Your task to perform on an android device: Go to calendar. Show me events next week Image 0: 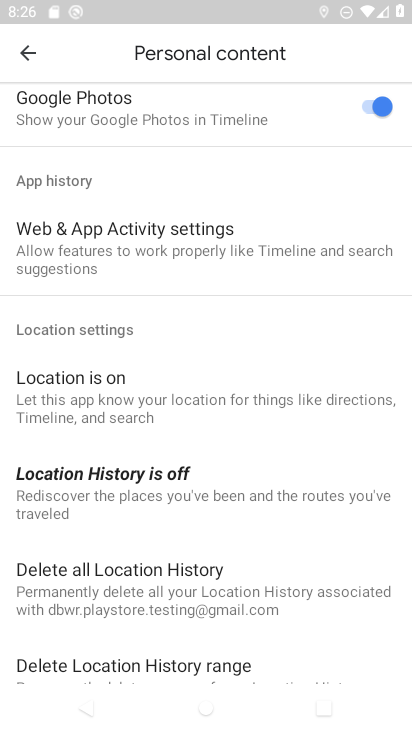
Step 0: press home button
Your task to perform on an android device: Go to calendar. Show me events next week Image 1: 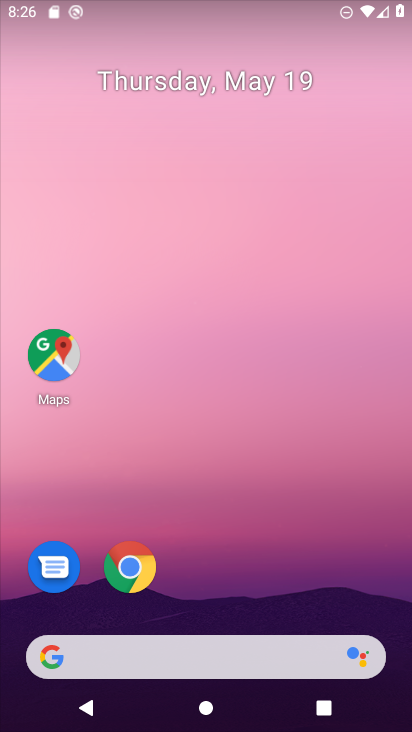
Step 1: click (248, 88)
Your task to perform on an android device: Go to calendar. Show me events next week Image 2: 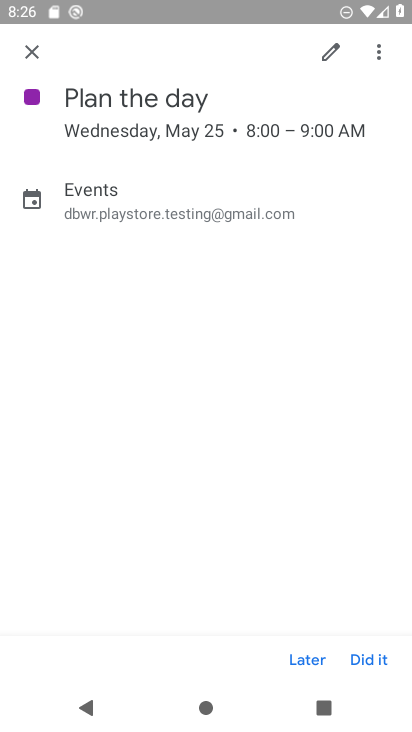
Step 2: click (31, 56)
Your task to perform on an android device: Go to calendar. Show me events next week Image 3: 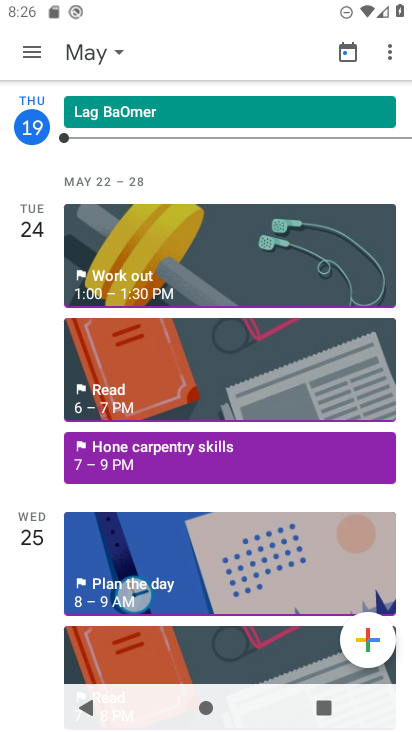
Step 3: click (110, 61)
Your task to perform on an android device: Go to calendar. Show me events next week Image 4: 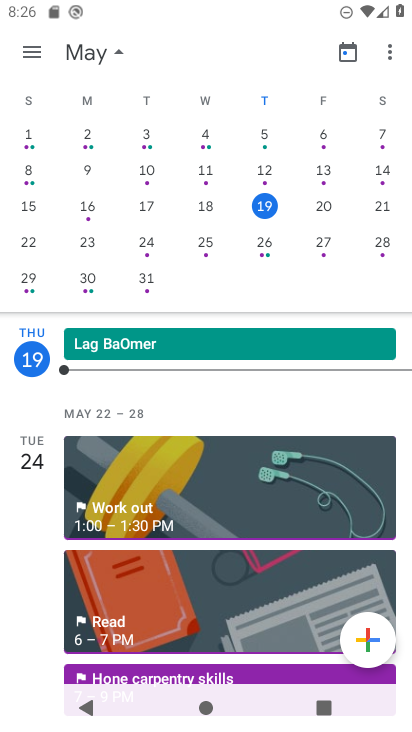
Step 4: click (265, 243)
Your task to perform on an android device: Go to calendar. Show me events next week Image 5: 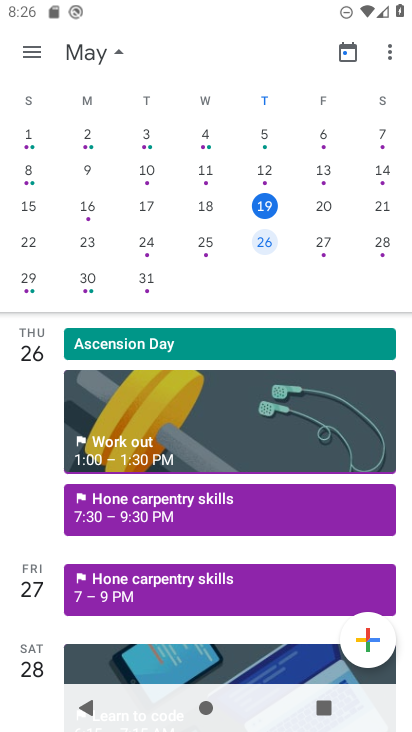
Step 5: task complete